Your task to perform on an android device: Go to Amazon Image 0: 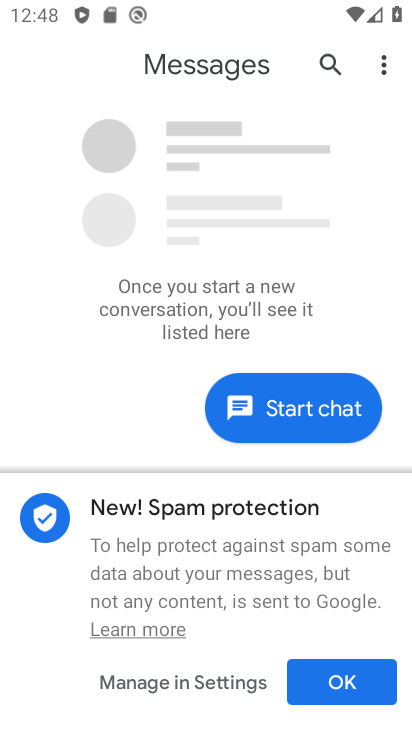
Step 0: press back button
Your task to perform on an android device: Go to Amazon Image 1: 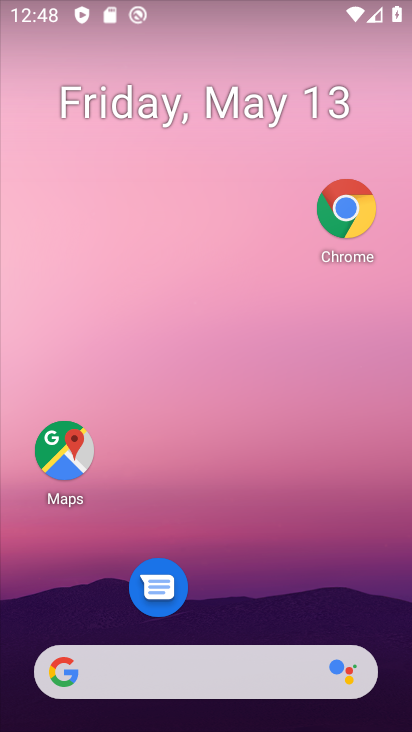
Step 1: click (365, 205)
Your task to perform on an android device: Go to Amazon Image 2: 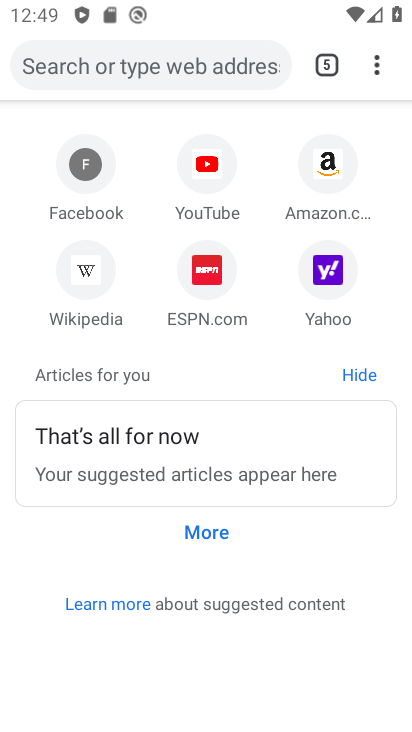
Step 2: click (315, 171)
Your task to perform on an android device: Go to Amazon Image 3: 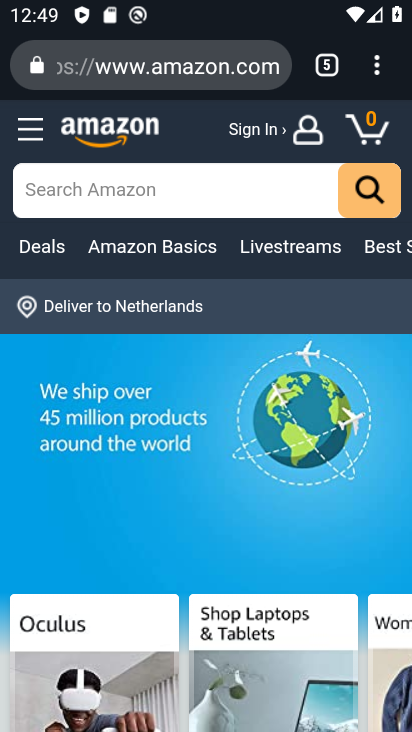
Step 3: task complete